Your task to perform on an android device: turn notification dots on Image 0: 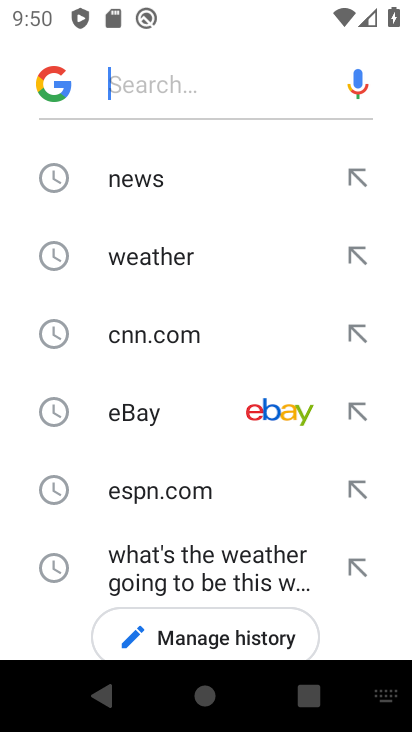
Step 0: press home button
Your task to perform on an android device: turn notification dots on Image 1: 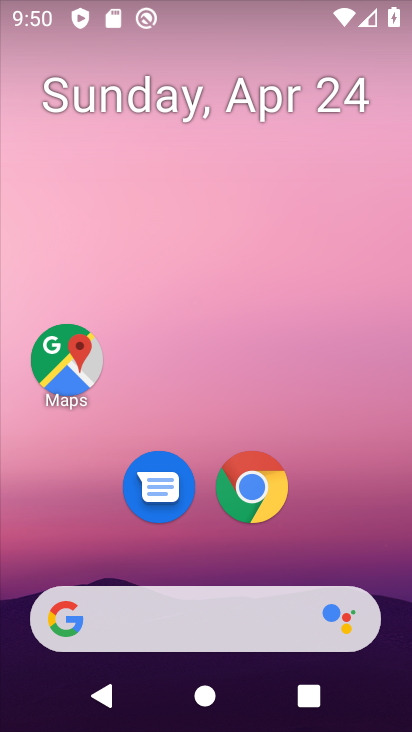
Step 1: drag from (310, 479) to (306, 95)
Your task to perform on an android device: turn notification dots on Image 2: 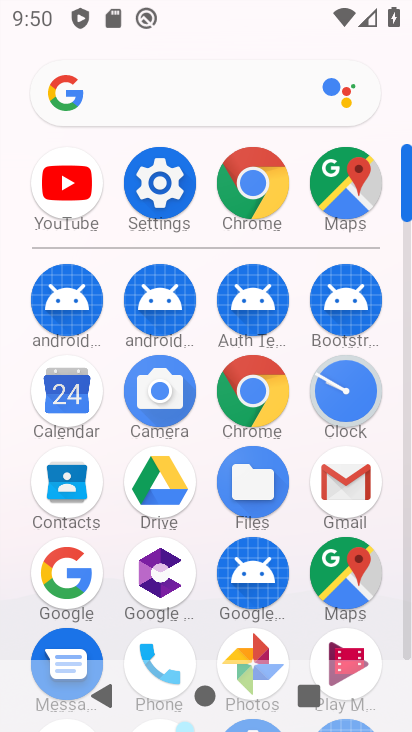
Step 2: click (175, 182)
Your task to perform on an android device: turn notification dots on Image 3: 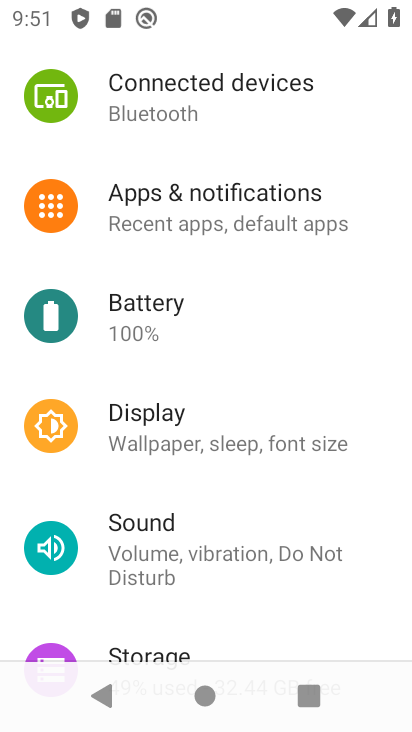
Step 3: click (243, 217)
Your task to perform on an android device: turn notification dots on Image 4: 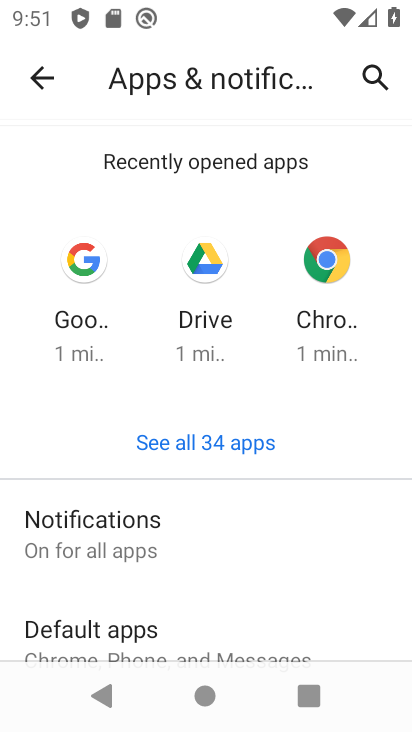
Step 4: click (97, 546)
Your task to perform on an android device: turn notification dots on Image 5: 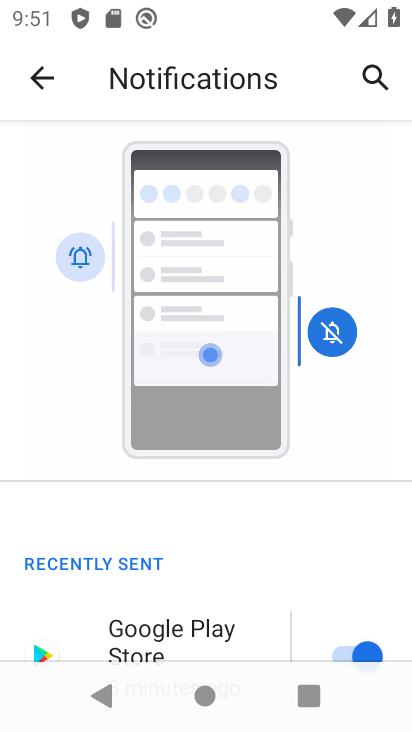
Step 5: drag from (273, 585) to (278, 80)
Your task to perform on an android device: turn notification dots on Image 6: 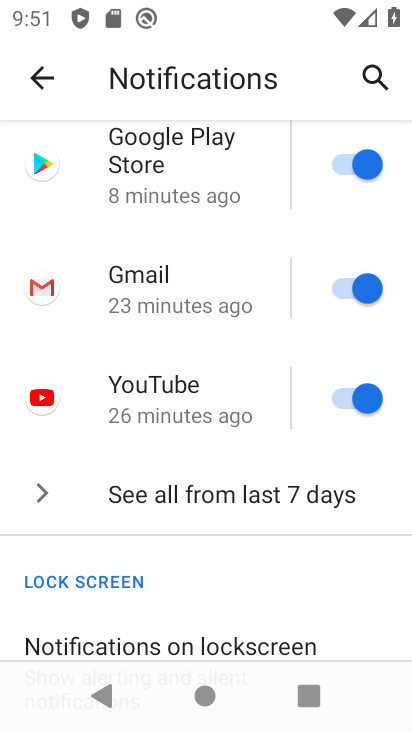
Step 6: drag from (337, 568) to (257, 185)
Your task to perform on an android device: turn notification dots on Image 7: 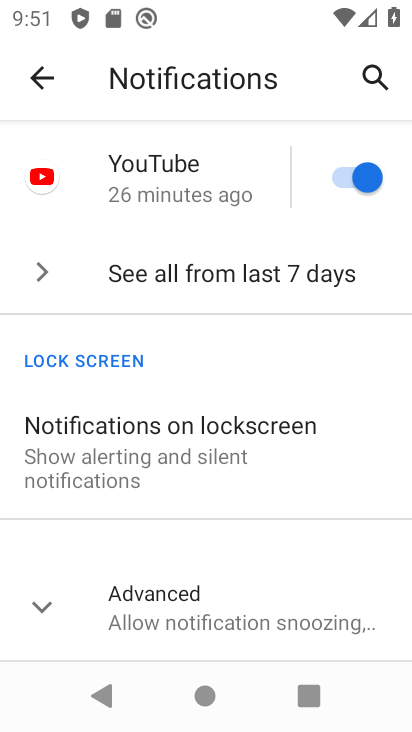
Step 7: click (199, 610)
Your task to perform on an android device: turn notification dots on Image 8: 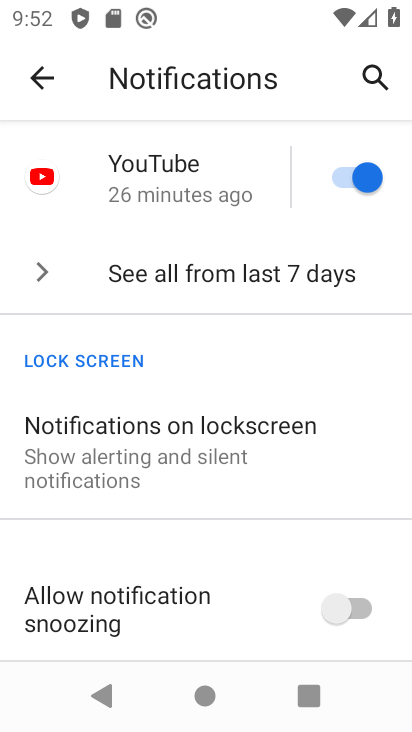
Step 8: task complete